Your task to perform on an android device: check android version Image 0: 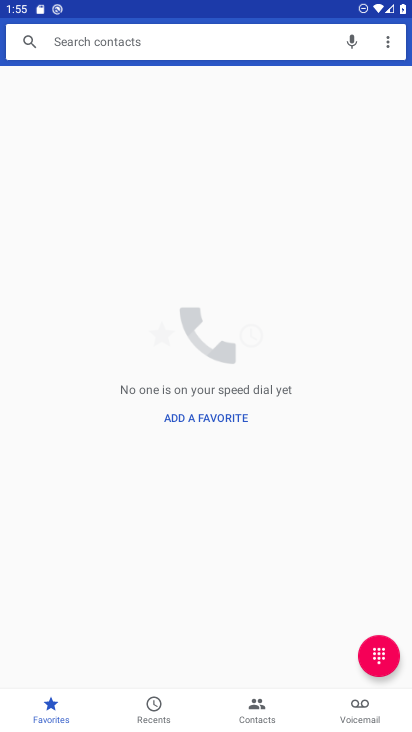
Step 0: press home button
Your task to perform on an android device: check android version Image 1: 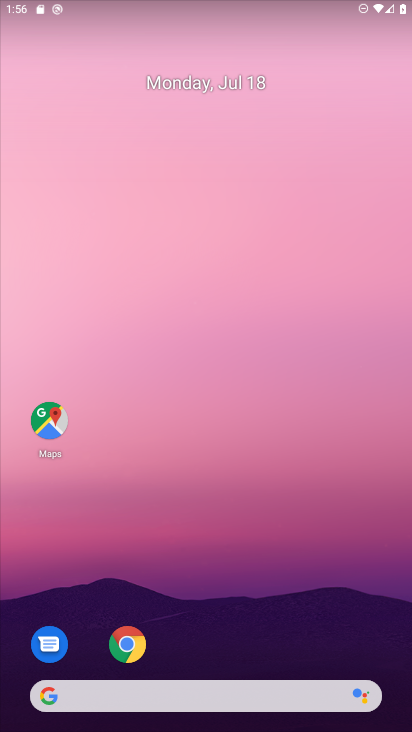
Step 1: drag from (245, 630) to (192, 0)
Your task to perform on an android device: check android version Image 2: 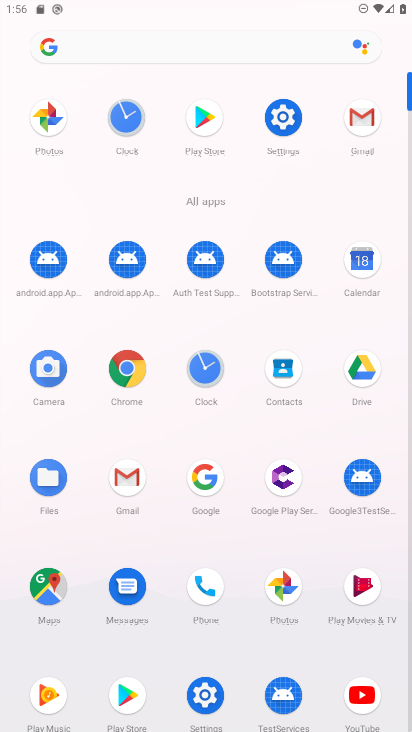
Step 2: click (283, 116)
Your task to perform on an android device: check android version Image 3: 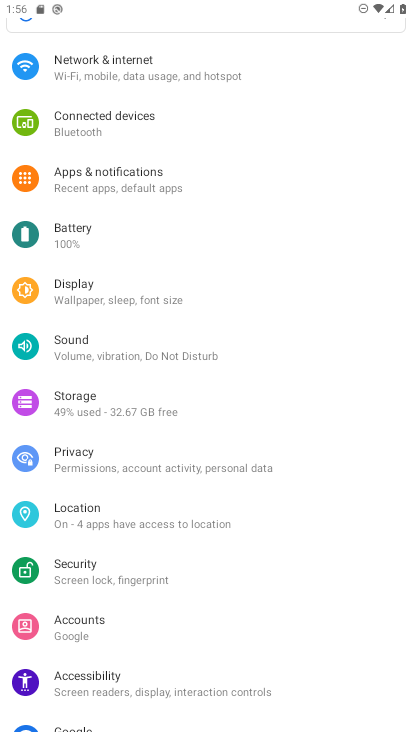
Step 3: drag from (262, 573) to (255, 10)
Your task to perform on an android device: check android version Image 4: 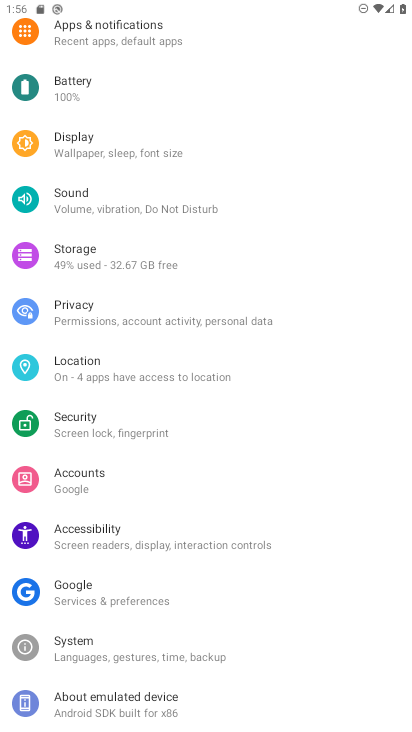
Step 4: click (67, 700)
Your task to perform on an android device: check android version Image 5: 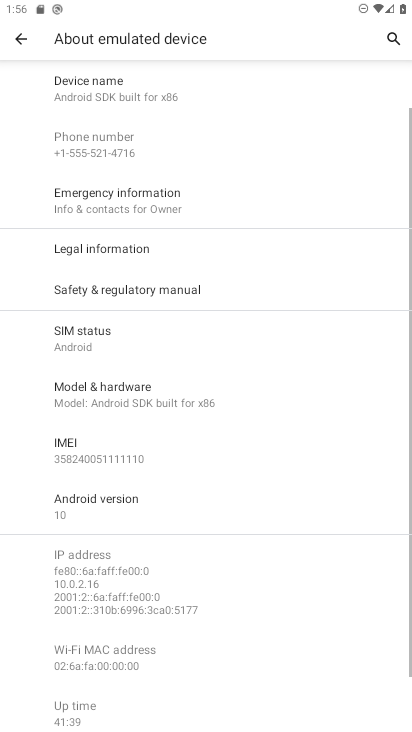
Step 5: click (133, 508)
Your task to perform on an android device: check android version Image 6: 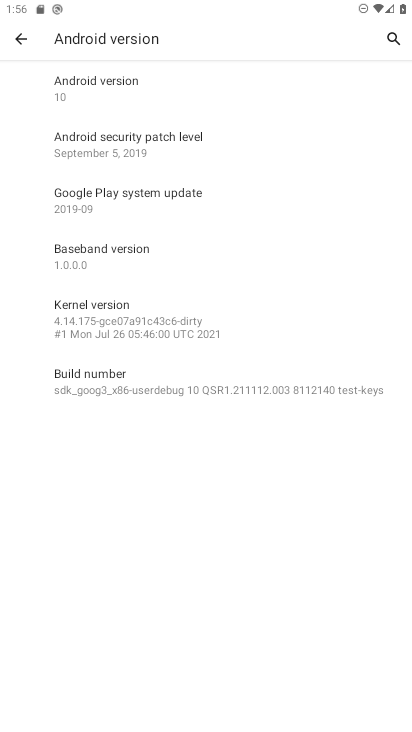
Step 6: task complete